Your task to perform on an android device: Check the news Image 0: 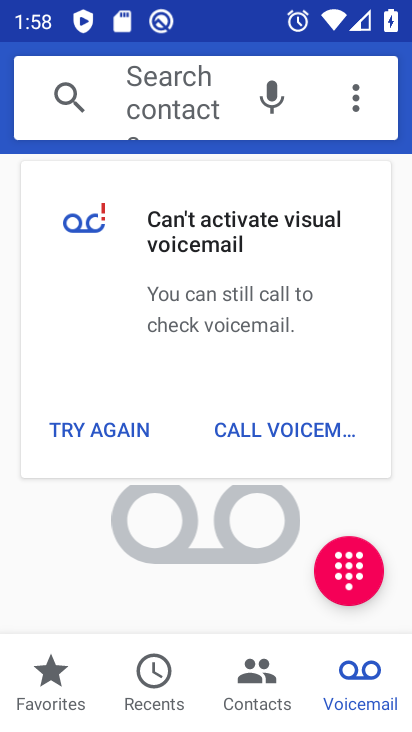
Step 0: press home button
Your task to perform on an android device: Check the news Image 1: 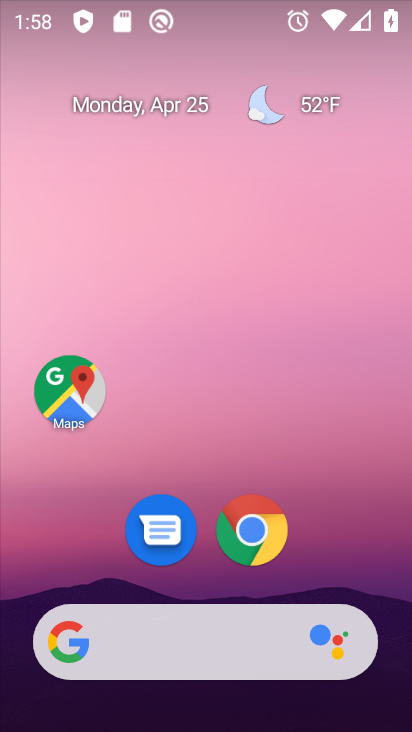
Step 1: drag from (371, 571) to (374, 84)
Your task to perform on an android device: Check the news Image 2: 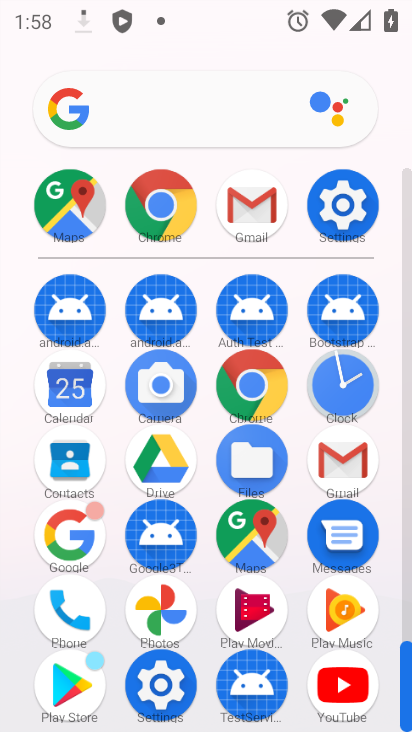
Step 2: click (252, 404)
Your task to perform on an android device: Check the news Image 3: 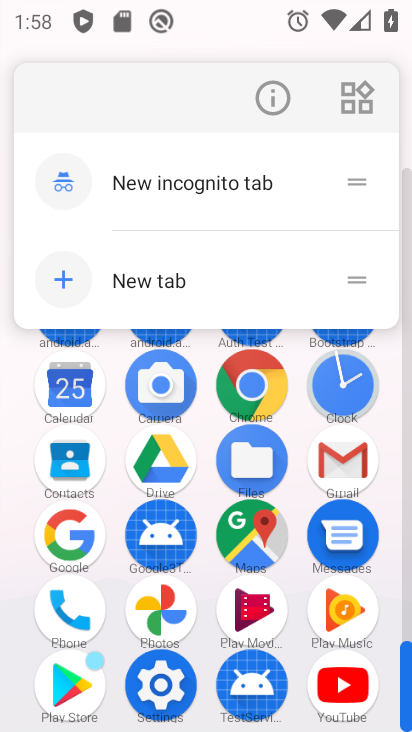
Step 3: click (257, 417)
Your task to perform on an android device: Check the news Image 4: 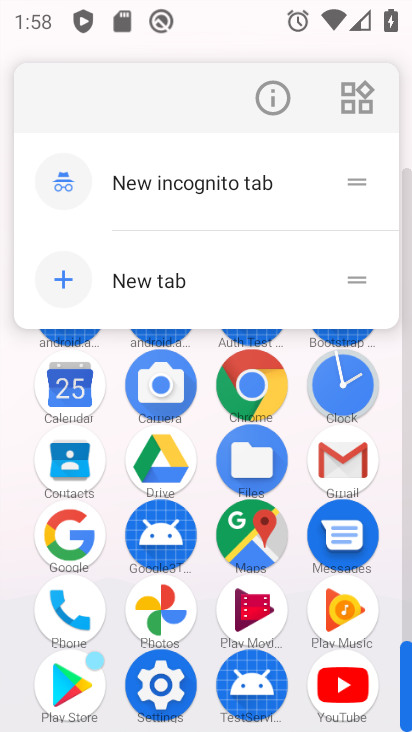
Step 4: click (245, 418)
Your task to perform on an android device: Check the news Image 5: 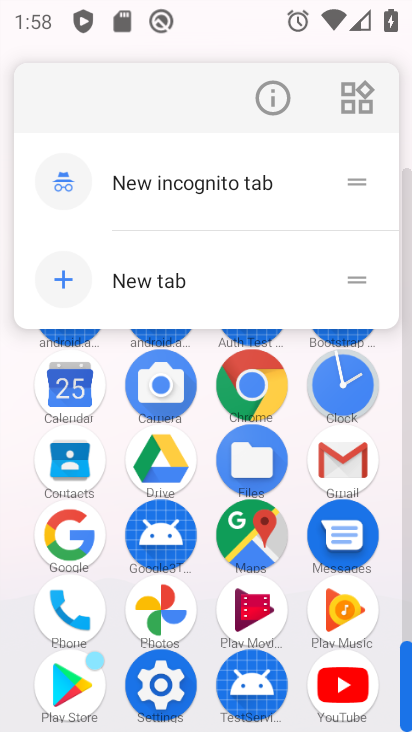
Step 5: click (237, 403)
Your task to perform on an android device: Check the news Image 6: 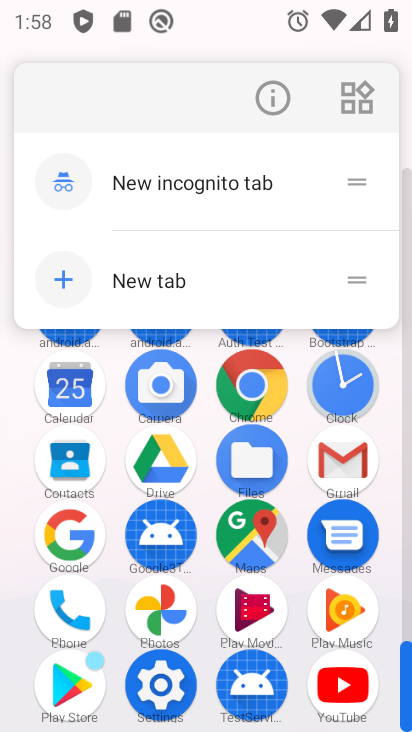
Step 6: click (259, 364)
Your task to perform on an android device: Check the news Image 7: 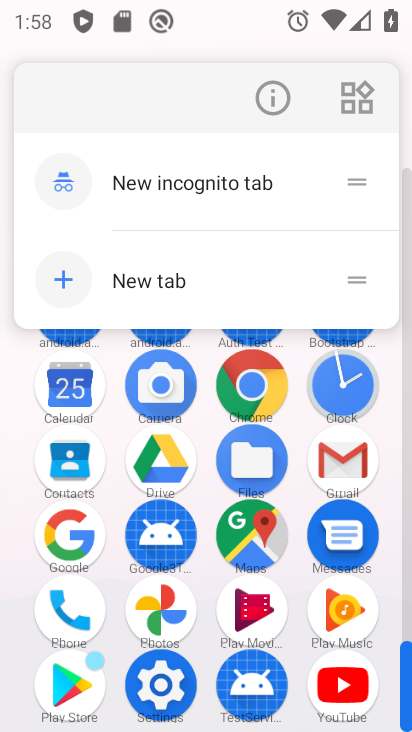
Step 7: click (266, 381)
Your task to perform on an android device: Check the news Image 8: 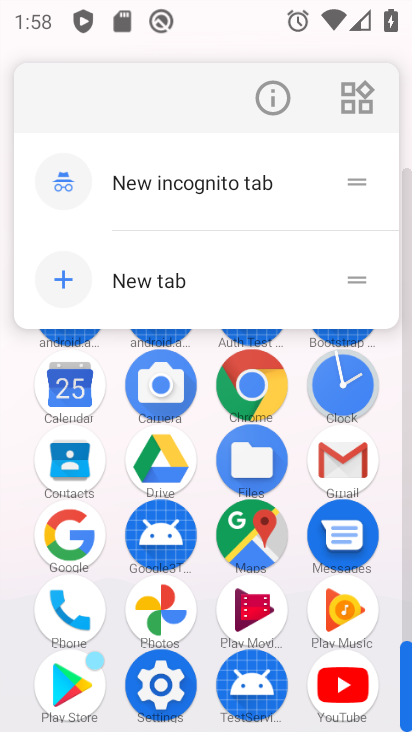
Step 8: click (266, 406)
Your task to perform on an android device: Check the news Image 9: 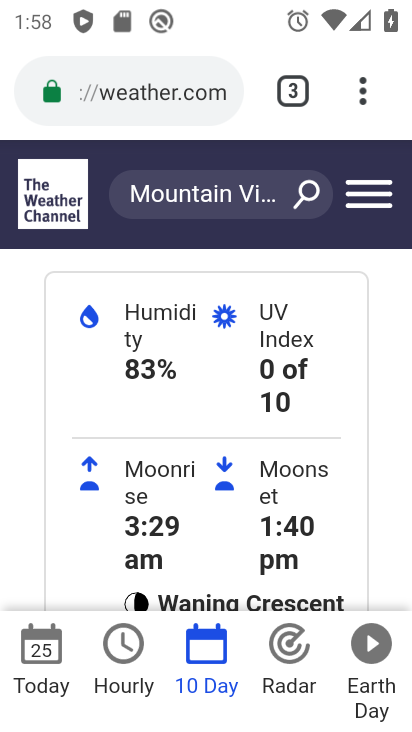
Step 9: click (177, 98)
Your task to perform on an android device: Check the news Image 10: 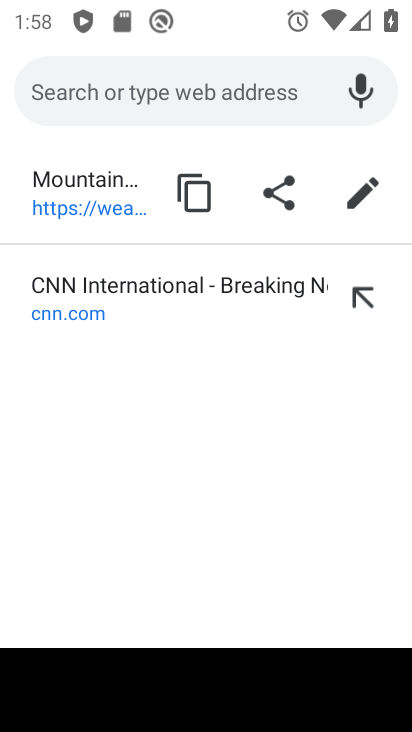
Step 10: type "news"
Your task to perform on an android device: Check the news Image 11: 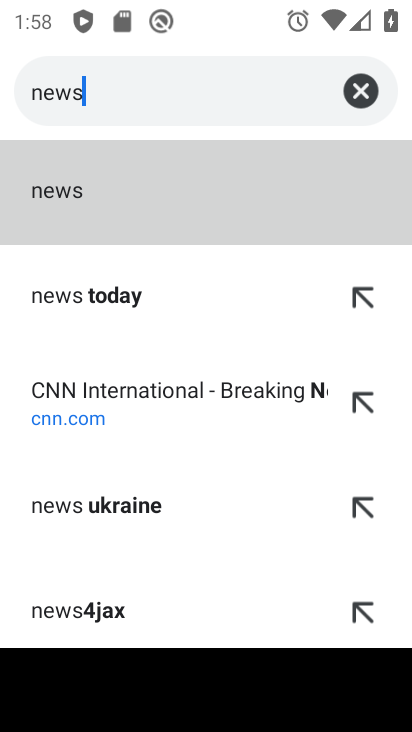
Step 11: click (97, 193)
Your task to perform on an android device: Check the news Image 12: 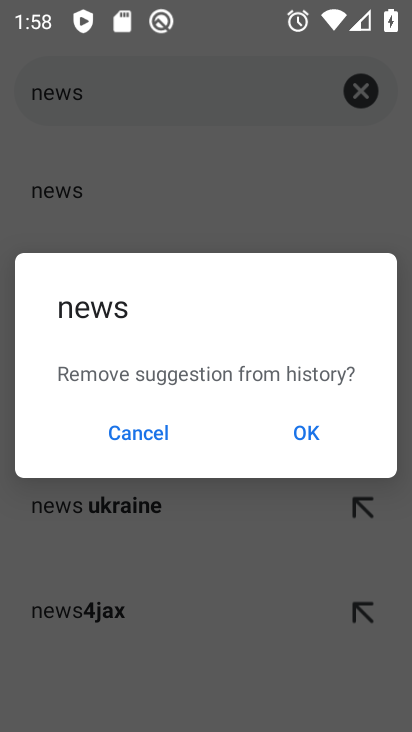
Step 12: click (308, 433)
Your task to perform on an android device: Check the news Image 13: 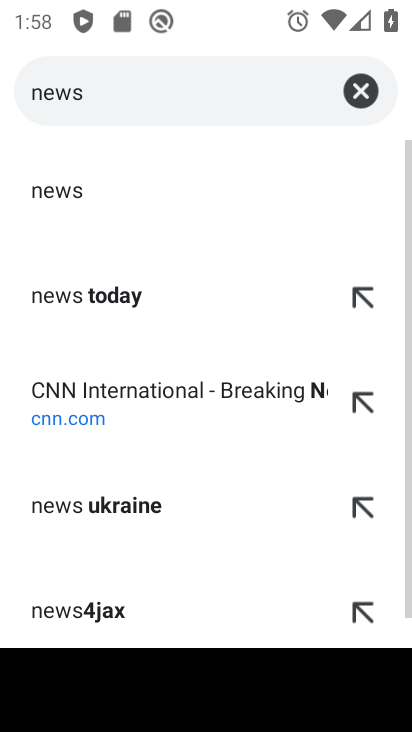
Step 13: click (80, 198)
Your task to perform on an android device: Check the news Image 14: 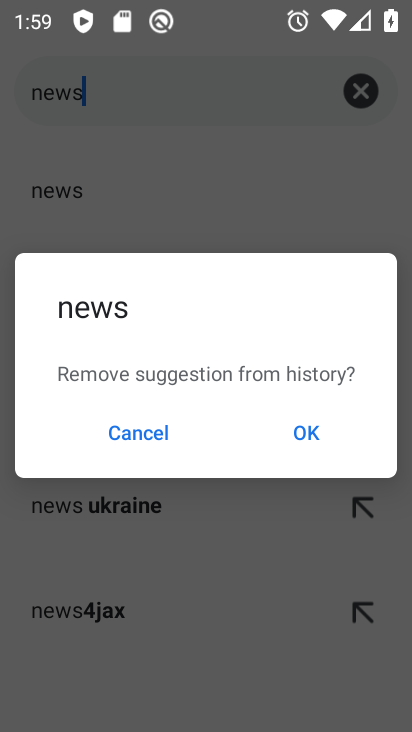
Step 14: click (163, 435)
Your task to perform on an android device: Check the news Image 15: 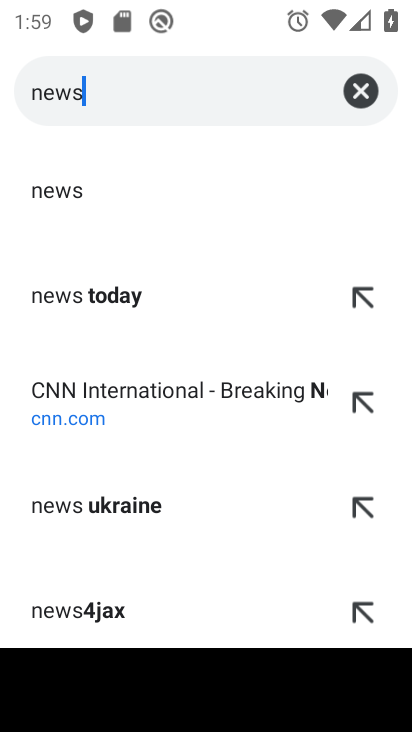
Step 15: click (134, 513)
Your task to perform on an android device: Check the news Image 16: 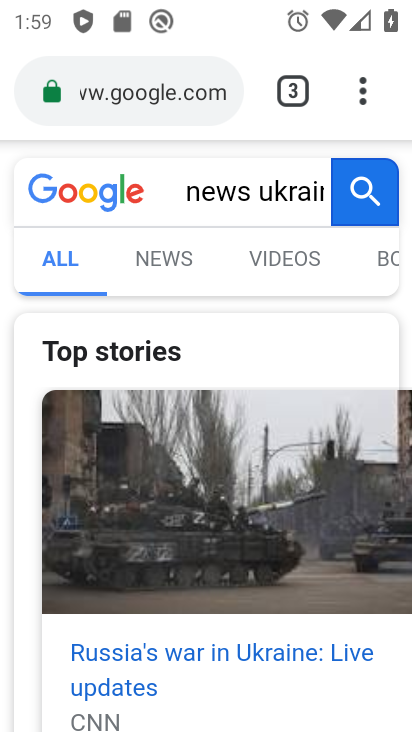
Step 16: task complete